Your task to perform on an android device: open wifi settings Image 0: 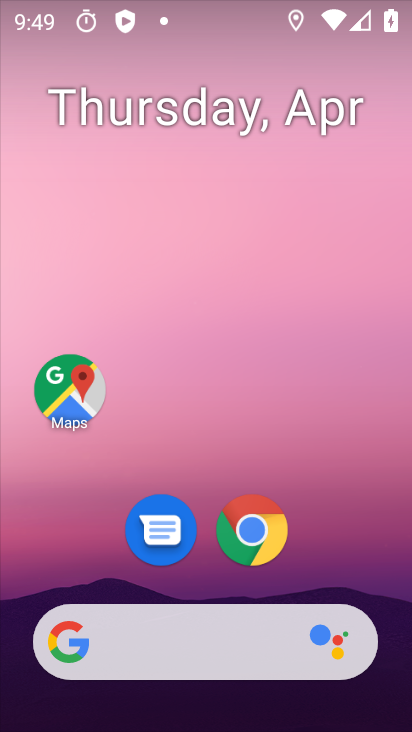
Step 0: drag from (372, 587) to (256, 17)
Your task to perform on an android device: open wifi settings Image 1: 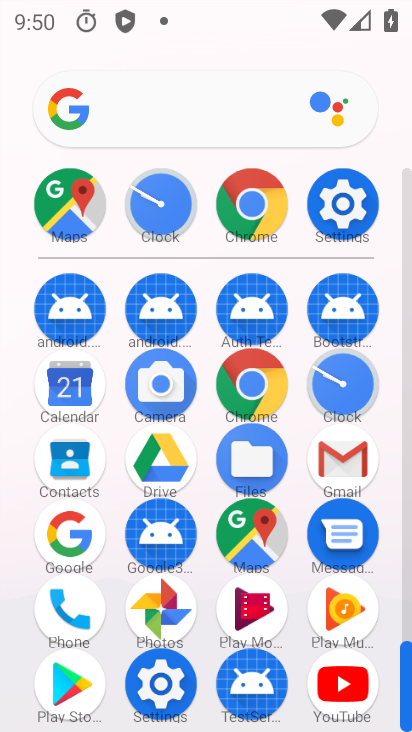
Step 1: click (356, 224)
Your task to perform on an android device: open wifi settings Image 2: 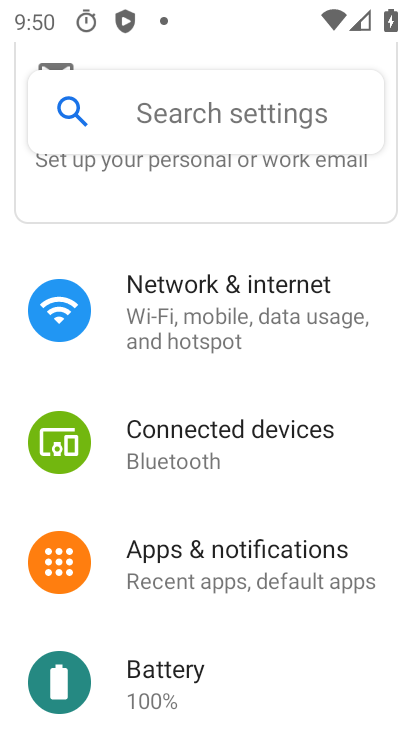
Step 2: drag from (240, 226) to (256, 568)
Your task to perform on an android device: open wifi settings Image 3: 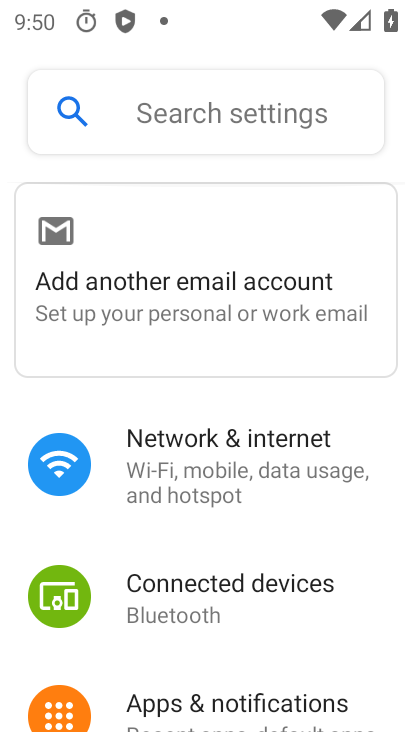
Step 3: click (148, 459)
Your task to perform on an android device: open wifi settings Image 4: 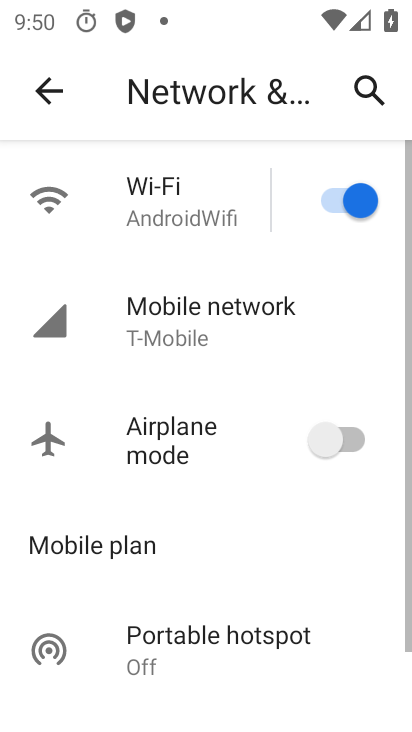
Step 4: click (180, 205)
Your task to perform on an android device: open wifi settings Image 5: 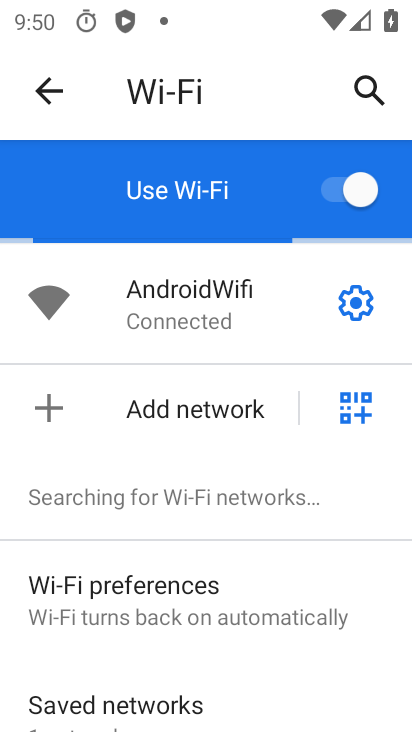
Step 5: task complete